Your task to perform on an android device: What's the weather? Image 0: 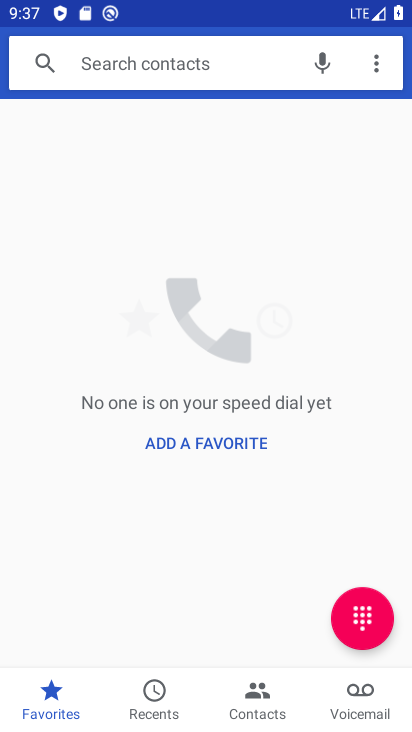
Step 0: press home button
Your task to perform on an android device: What's the weather? Image 1: 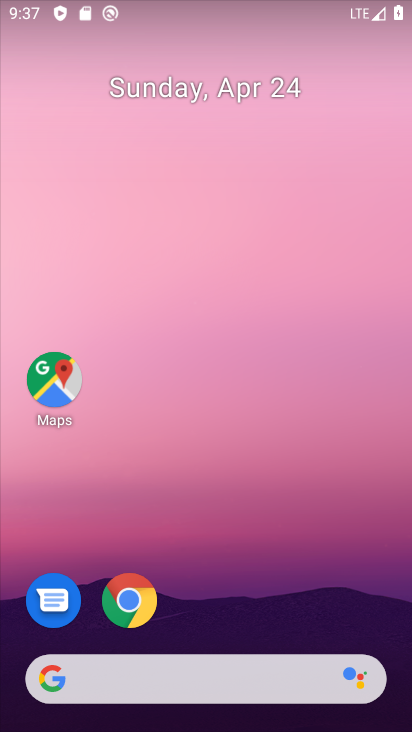
Step 1: click (196, 669)
Your task to perform on an android device: What's the weather? Image 2: 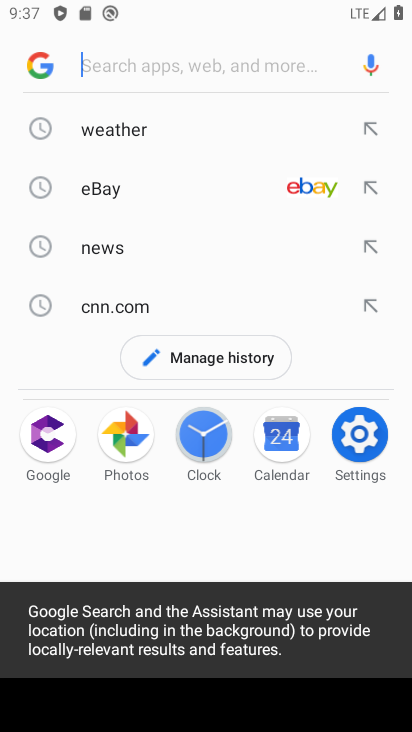
Step 2: click (123, 114)
Your task to perform on an android device: What's the weather? Image 3: 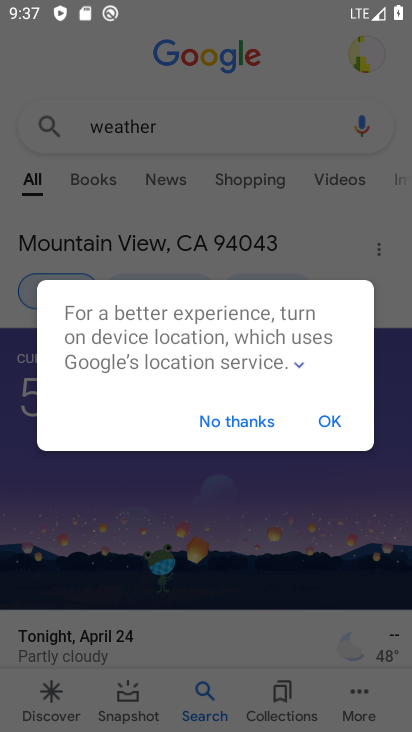
Step 3: click (330, 423)
Your task to perform on an android device: What's the weather? Image 4: 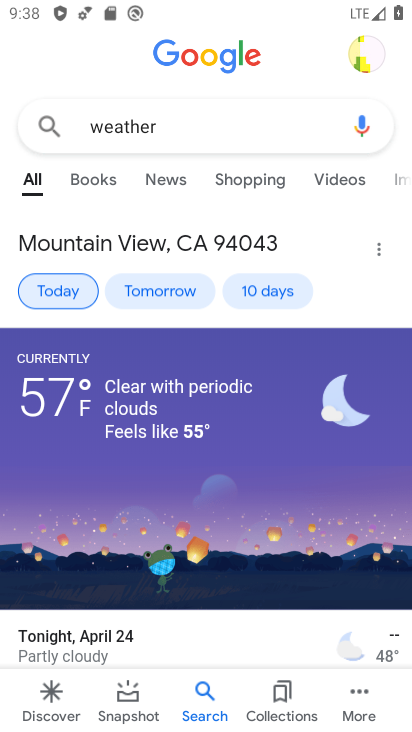
Step 4: task complete